Your task to perform on an android device: turn off data saver in the chrome app Image 0: 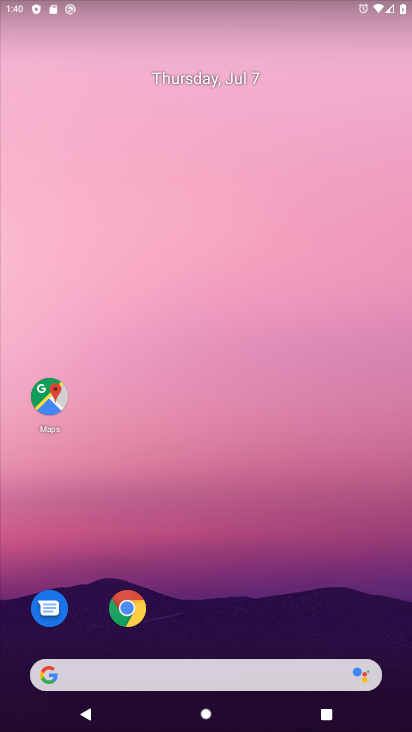
Step 0: click (126, 608)
Your task to perform on an android device: turn off data saver in the chrome app Image 1: 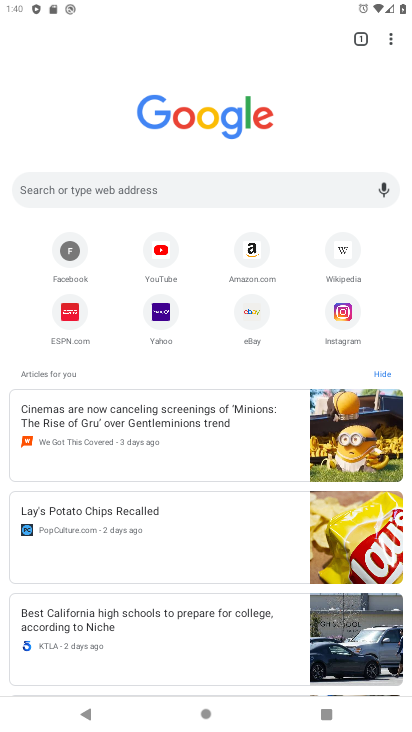
Step 1: click (392, 43)
Your task to perform on an android device: turn off data saver in the chrome app Image 2: 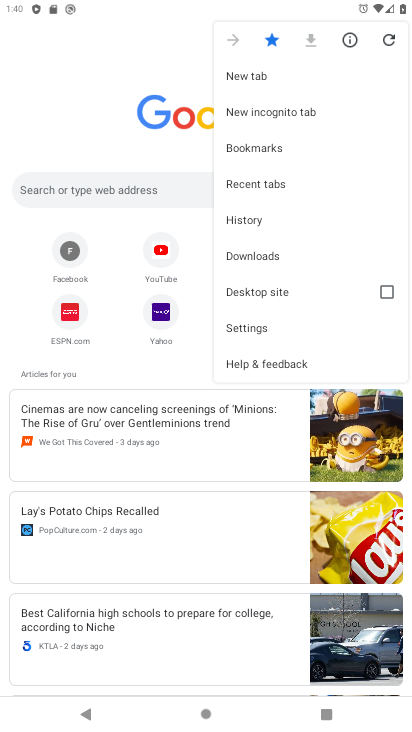
Step 2: click (255, 319)
Your task to perform on an android device: turn off data saver in the chrome app Image 3: 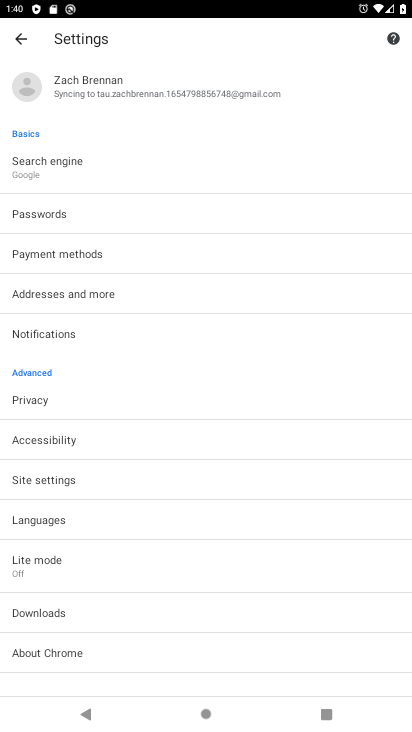
Step 3: click (50, 559)
Your task to perform on an android device: turn off data saver in the chrome app Image 4: 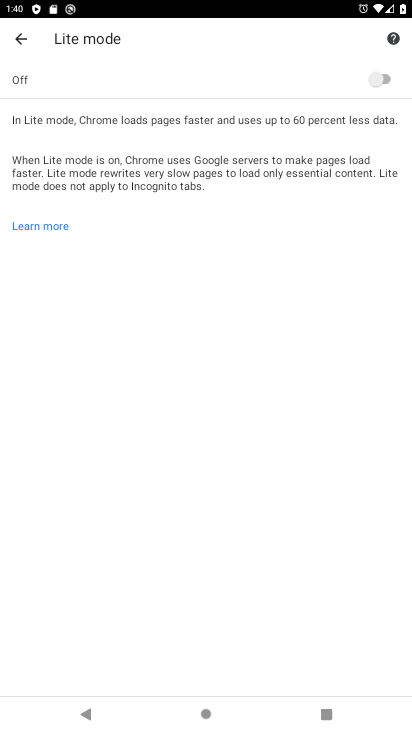
Step 4: task complete